Your task to perform on an android device: Open the Play Movies app and select the watchlist tab. Image 0: 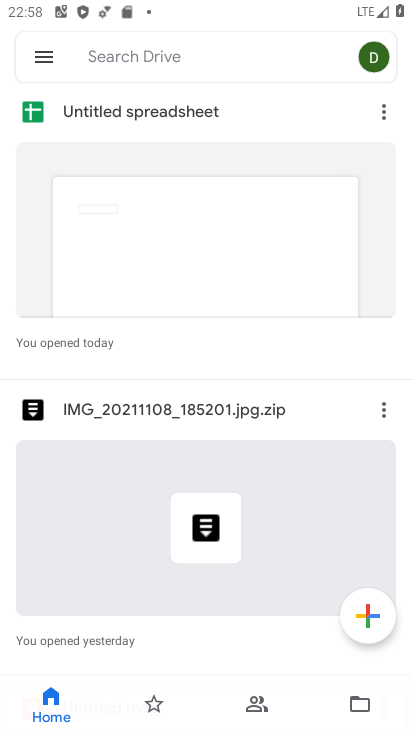
Step 0: press home button
Your task to perform on an android device: Open the Play Movies app and select the watchlist tab. Image 1: 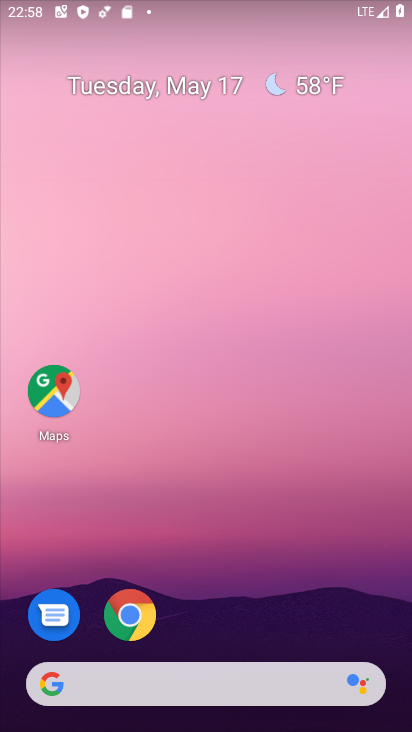
Step 1: drag from (200, 592) to (191, 179)
Your task to perform on an android device: Open the Play Movies app and select the watchlist tab. Image 2: 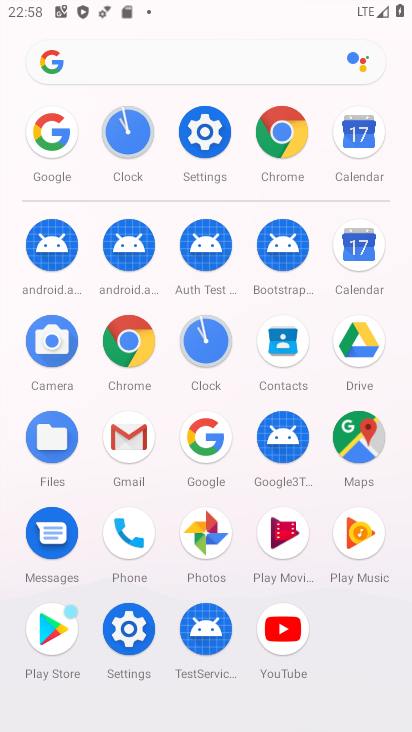
Step 2: click (285, 529)
Your task to perform on an android device: Open the Play Movies app and select the watchlist tab. Image 3: 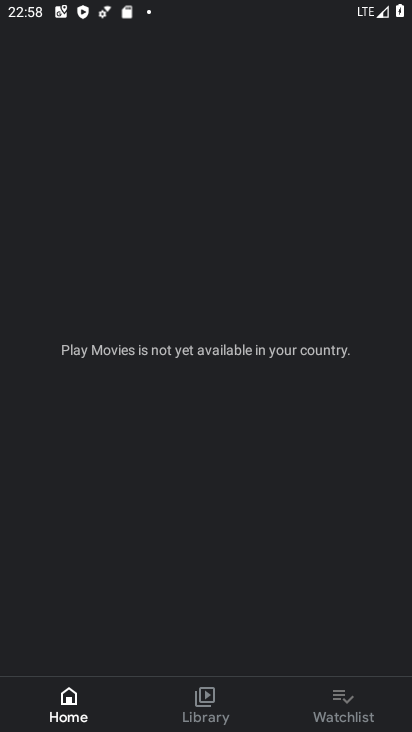
Step 3: click (336, 699)
Your task to perform on an android device: Open the Play Movies app and select the watchlist tab. Image 4: 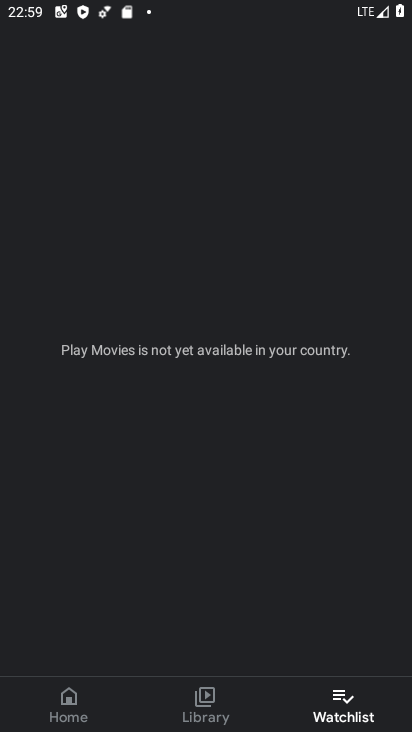
Step 4: task complete